Your task to perform on an android device: open wifi settings Image 0: 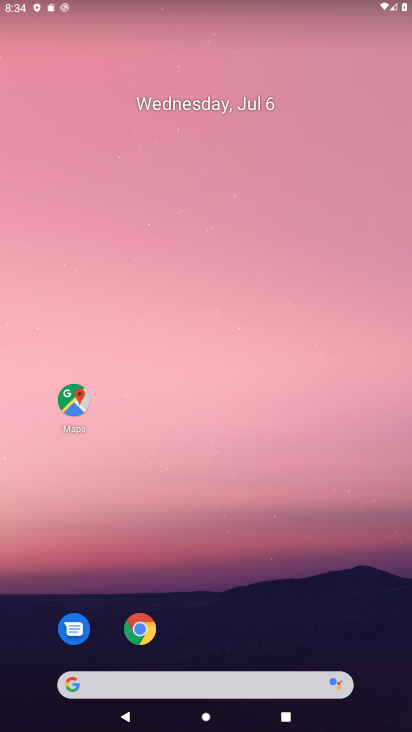
Step 0: drag from (236, 608) to (181, 19)
Your task to perform on an android device: open wifi settings Image 1: 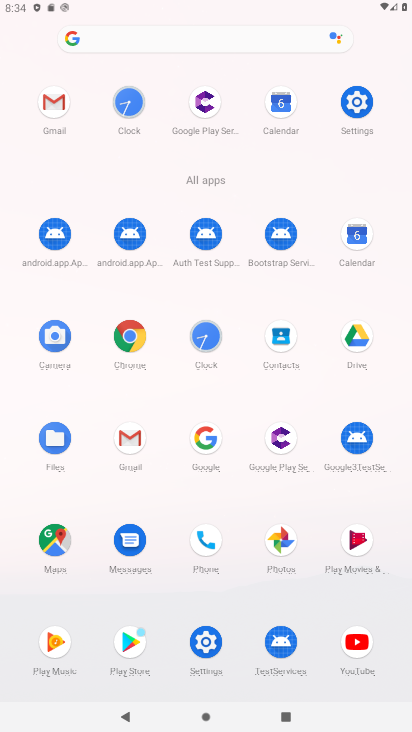
Step 1: click (355, 103)
Your task to perform on an android device: open wifi settings Image 2: 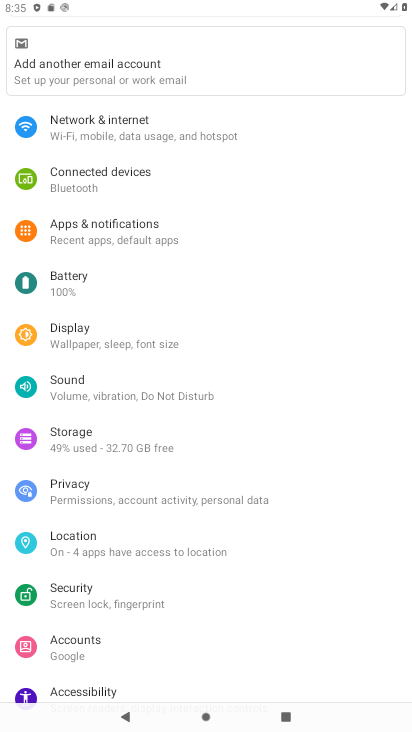
Step 2: click (98, 131)
Your task to perform on an android device: open wifi settings Image 3: 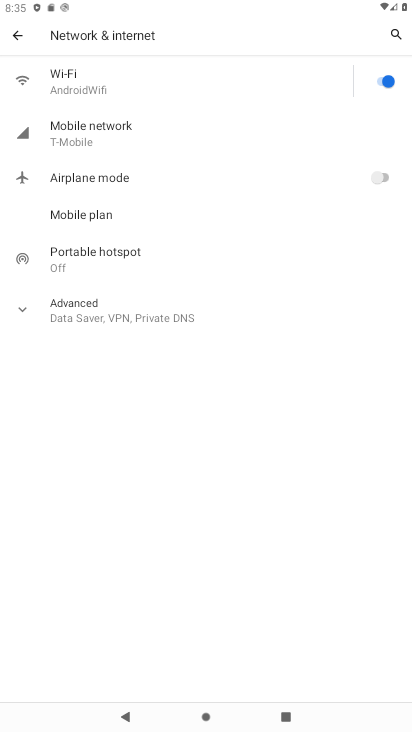
Step 3: click (80, 87)
Your task to perform on an android device: open wifi settings Image 4: 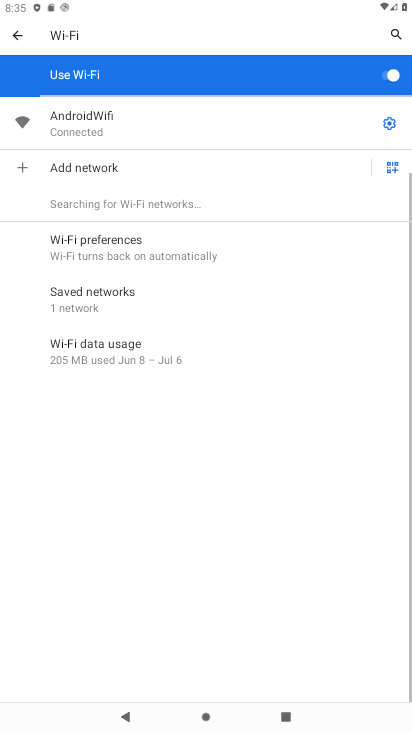
Step 4: click (393, 125)
Your task to perform on an android device: open wifi settings Image 5: 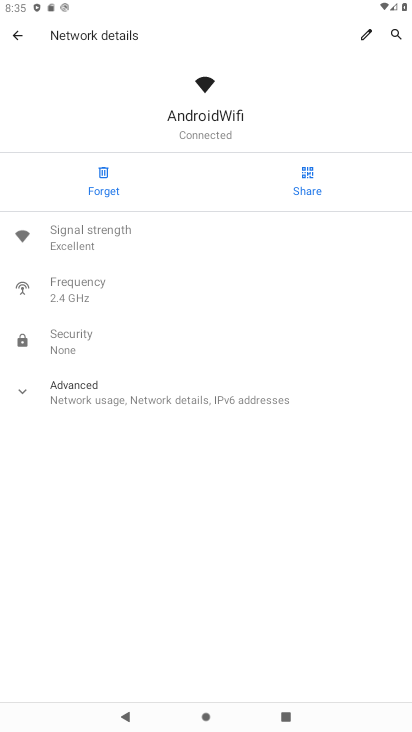
Step 5: task complete